Your task to perform on an android device: delete location history Image 0: 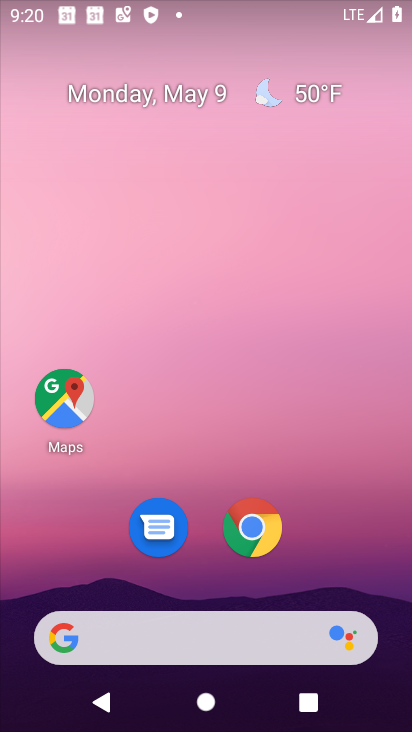
Step 0: drag from (203, 574) to (255, 11)
Your task to perform on an android device: delete location history Image 1: 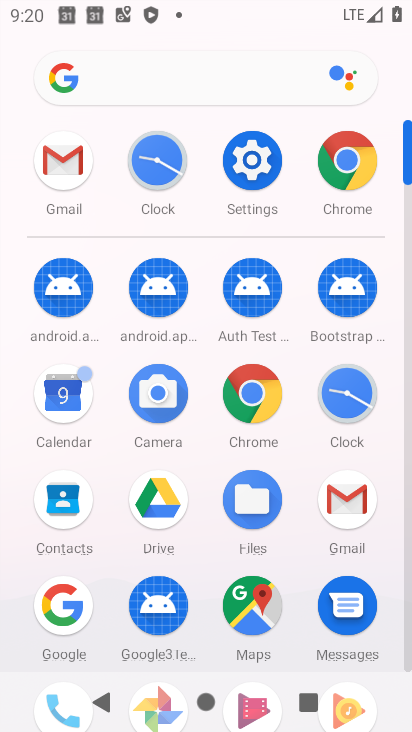
Step 1: click (253, 617)
Your task to perform on an android device: delete location history Image 2: 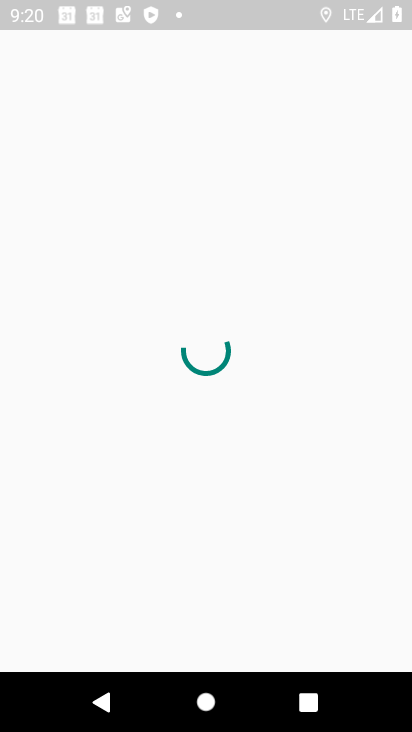
Step 2: click (380, 599)
Your task to perform on an android device: delete location history Image 3: 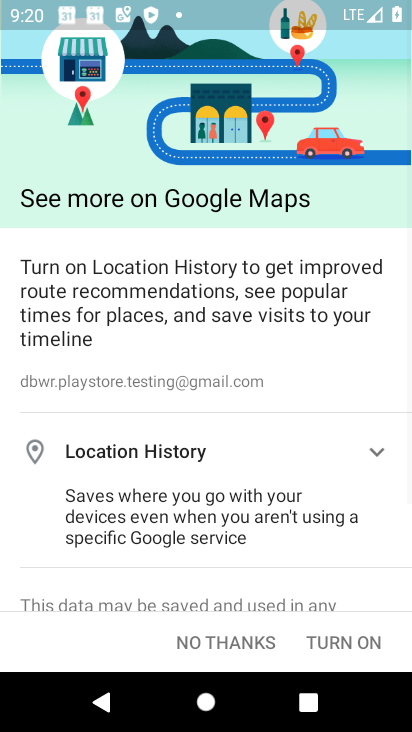
Step 3: click (255, 647)
Your task to perform on an android device: delete location history Image 4: 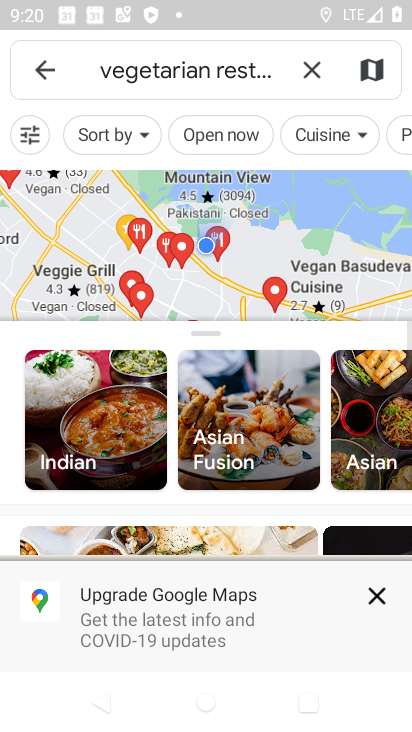
Step 4: click (46, 56)
Your task to perform on an android device: delete location history Image 5: 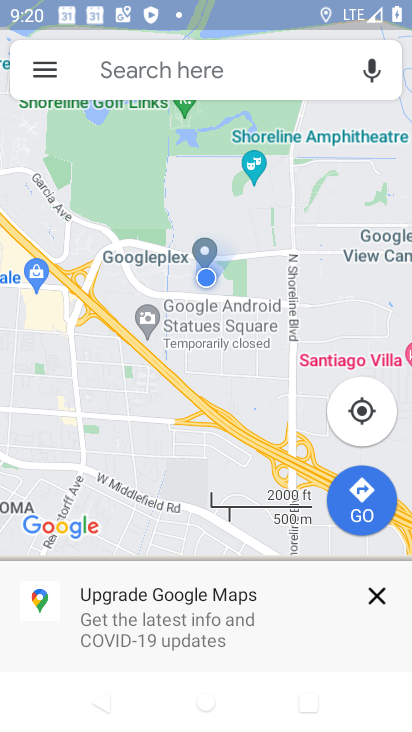
Step 5: click (49, 68)
Your task to perform on an android device: delete location history Image 6: 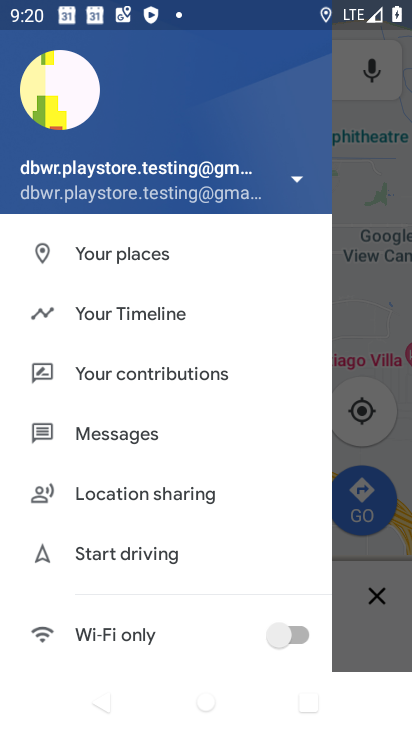
Step 6: click (156, 317)
Your task to perform on an android device: delete location history Image 7: 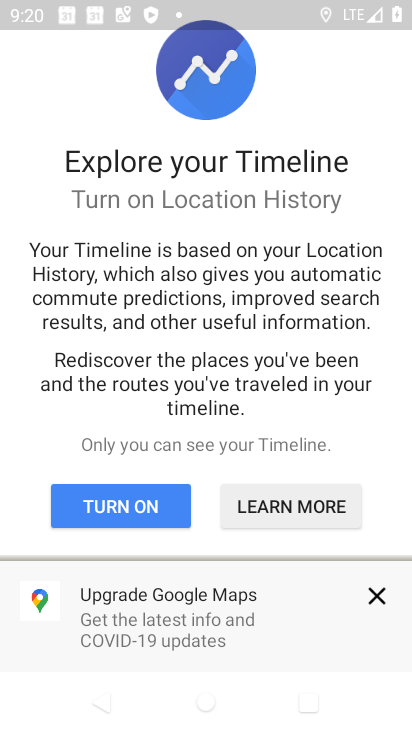
Step 7: click (386, 590)
Your task to perform on an android device: delete location history Image 8: 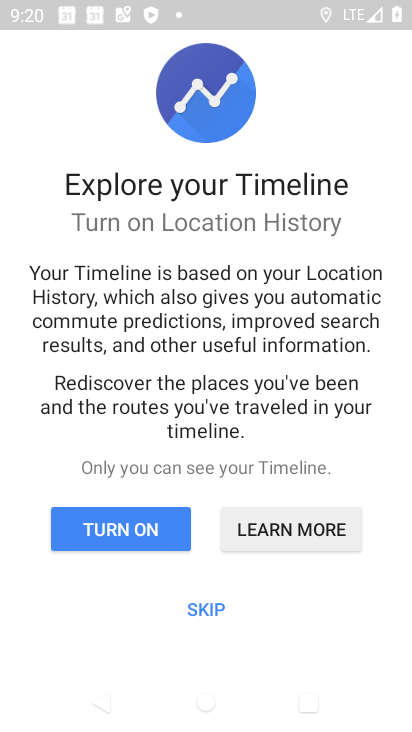
Step 8: click (203, 603)
Your task to perform on an android device: delete location history Image 9: 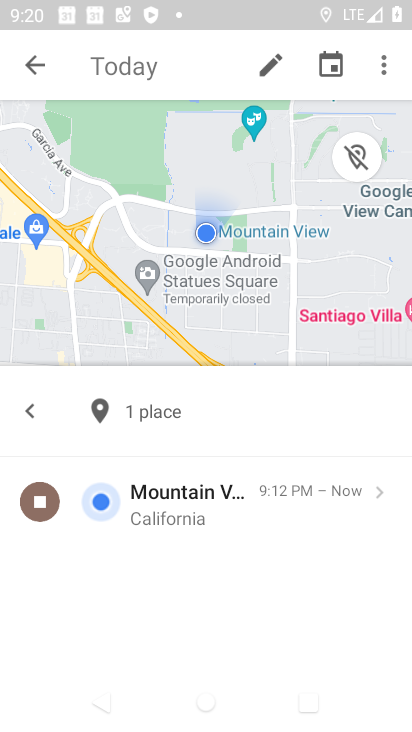
Step 9: click (382, 71)
Your task to perform on an android device: delete location history Image 10: 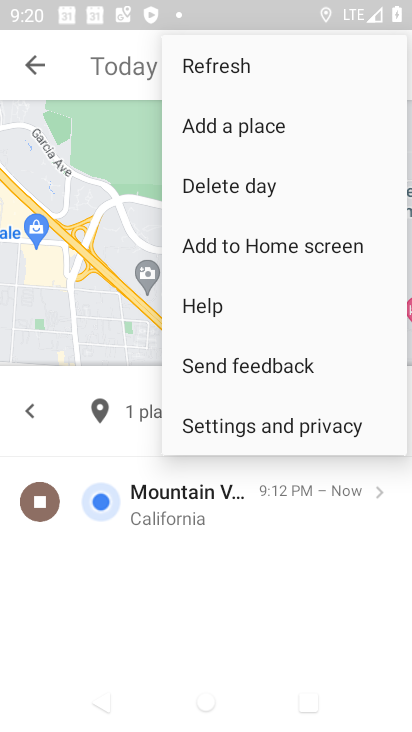
Step 10: click (227, 428)
Your task to perform on an android device: delete location history Image 11: 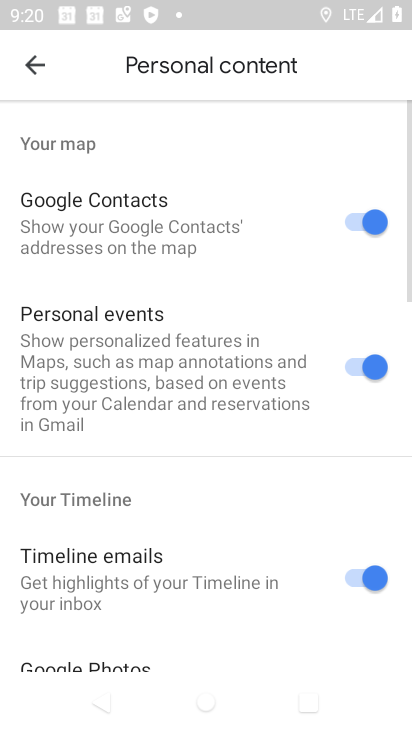
Step 11: drag from (210, 557) to (246, 190)
Your task to perform on an android device: delete location history Image 12: 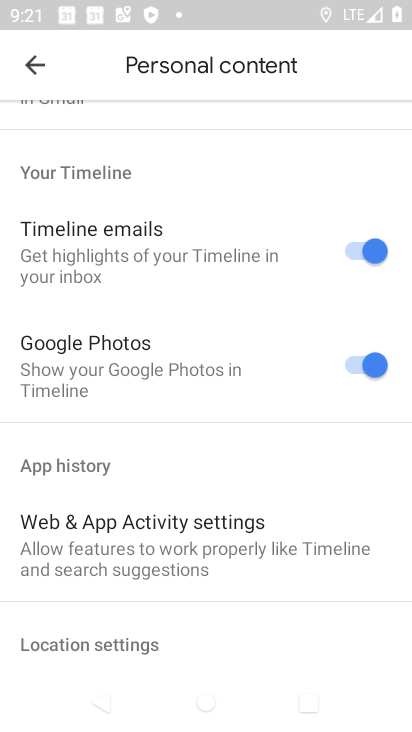
Step 12: drag from (212, 606) to (257, 104)
Your task to perform on an android device: delete location history Image 13: 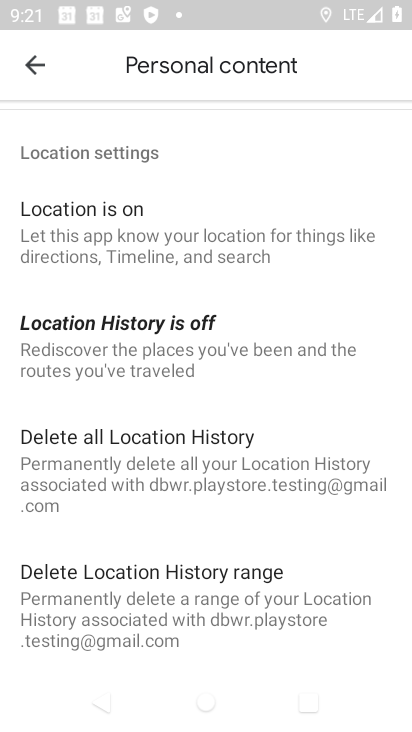
Step 13: click (207, 442)
Your task to perform on an android device: delete location history Image 14: 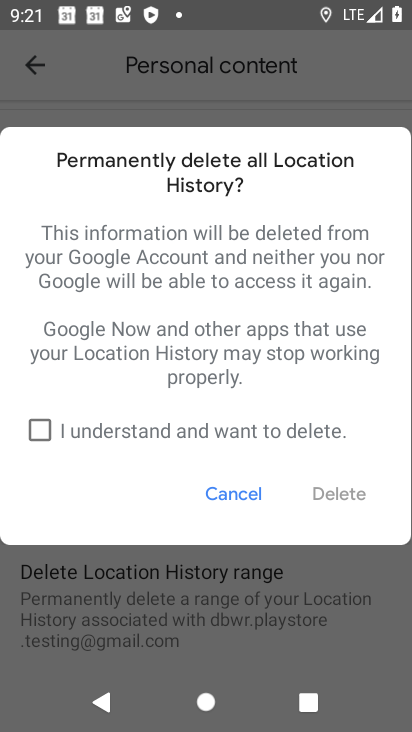
Step 14: click (99, 431)
Your task to perform on an android device: delete location history Image 15: 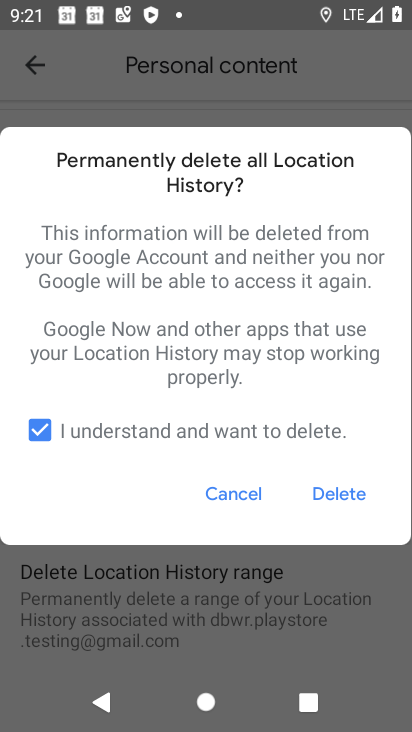
Step 15: click (332, 492)
Your task to perform on an android device: delete location history Image 16: 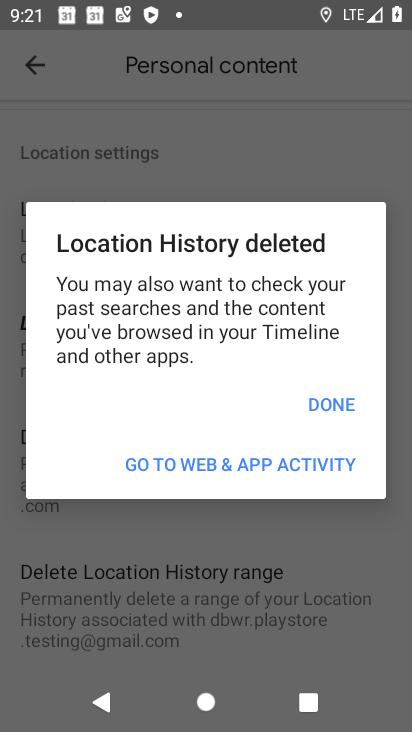
Step 16: click (344, 404)
Your task to perform on an android device: delete location history Image 17: 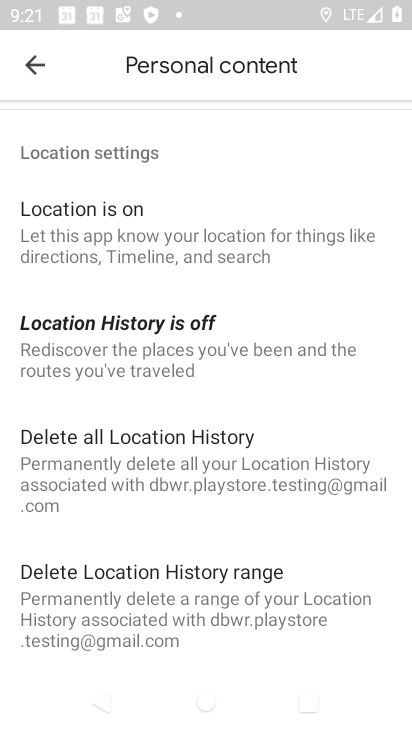
Step 17: task complete